Your task to perform on an android device: install app "Mercado Libre" Image 0: 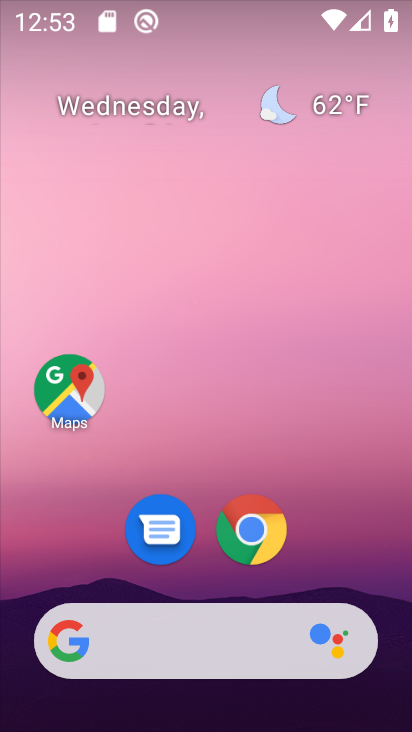
Step 0: drag from (202, 548) to (167, 168)
Your task to perform on an android device: install app "Mercado Libre" Image 1: 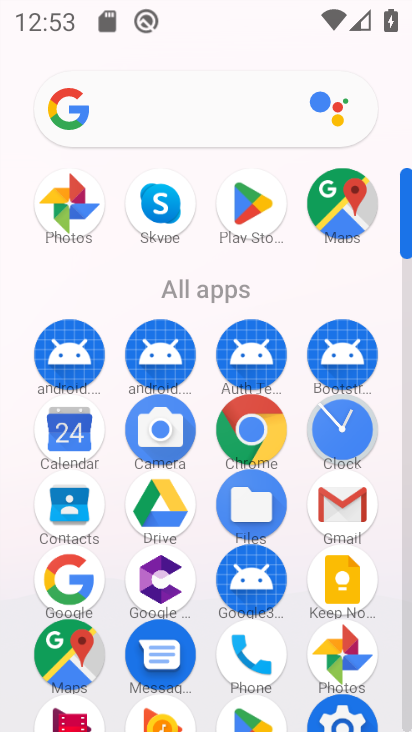
Step 1: click (241, 204)
Your task to perform on an android device: install app "Mercado Libre" Image 2: 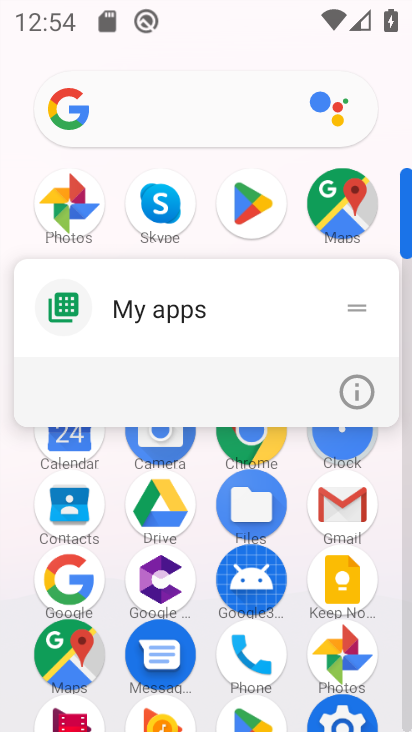
Step 2: click (241, 204)
Your task to perform on an android device: install app "Mercado Libre" Image 3: 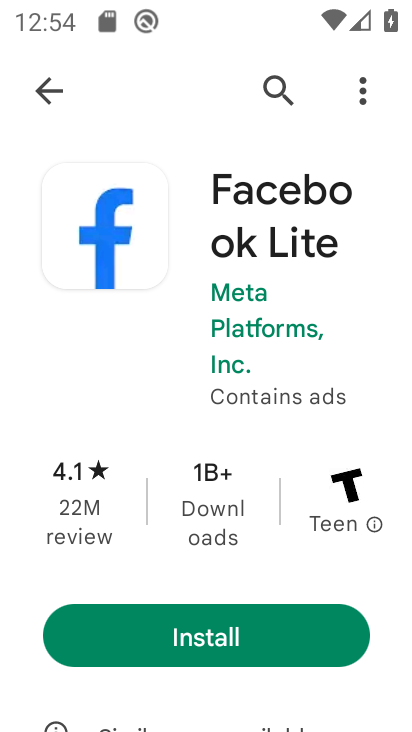
Step 3: click (54, 102)
Your task to perform on an android device: install app "Mercado Libre" Image 4: 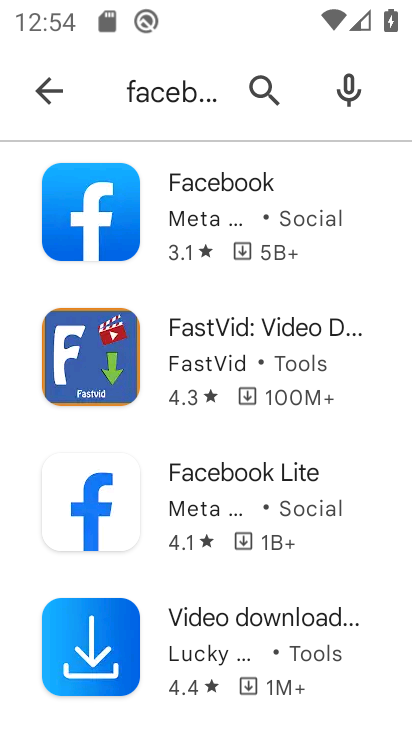
Step 4: click (74, 83)
Your task to perform on an android device: install app "Mercado Libre" Image 5: 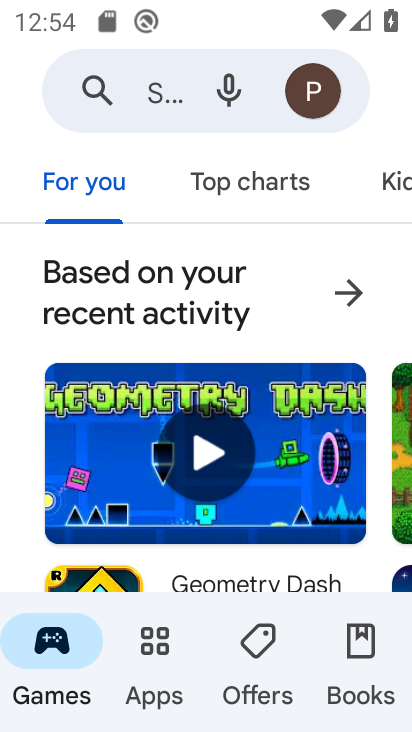
Step 5: click (129, 96)
Your task to perform on an android device: install app "Mercado Libre" Image 6: 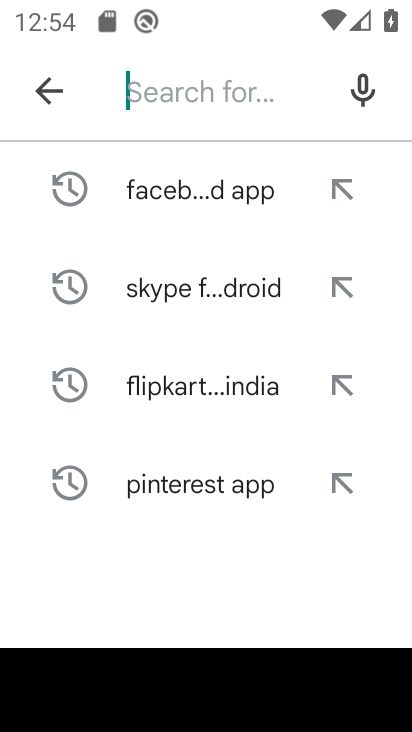
Step 6: click (172, 94)
Your task to perform on an android device: install app "Mercado Libre" Image 7: 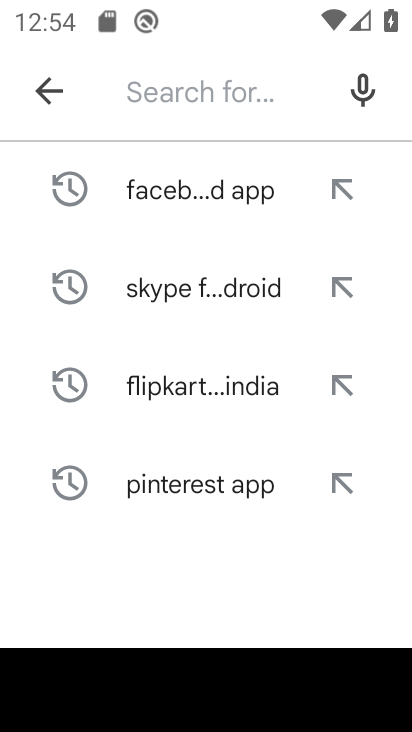
Step 7: type "Mercado Libre "
Your task to perform on an android device: install app "Mercado Libre" Image 8: 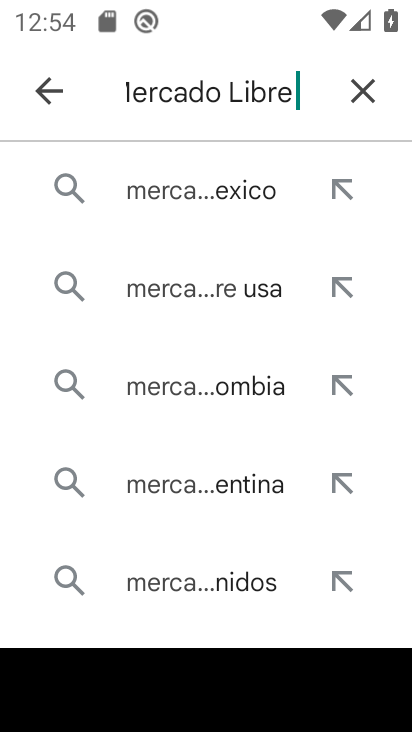
Step 8: drag from (219, 606) to (238, 145)
Your task to perform on an android device: install app "Mercado Libre" Image 9: 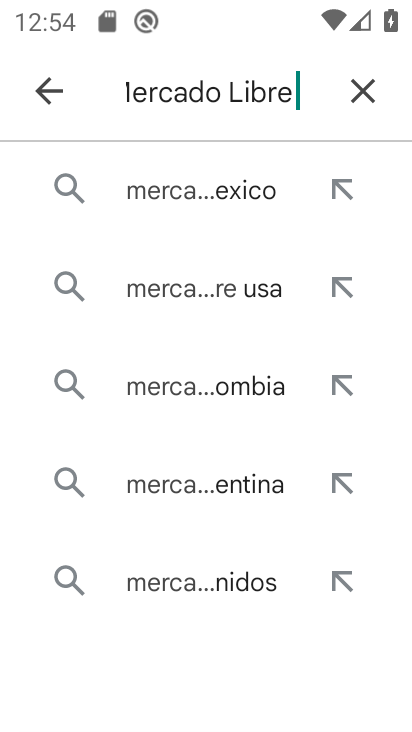
Step 9: click (217, 170)
Your task to perform on an android device: install app "Mercado Libre" Image 10: 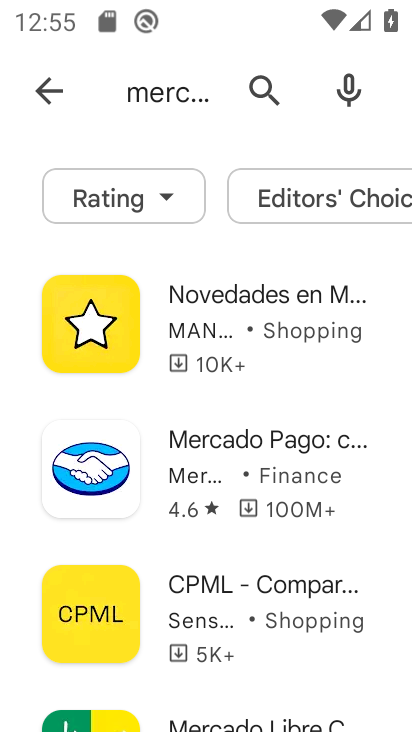
Step 10: task complete